Your task to perform on an android device: Open ESPN.com Image 0: 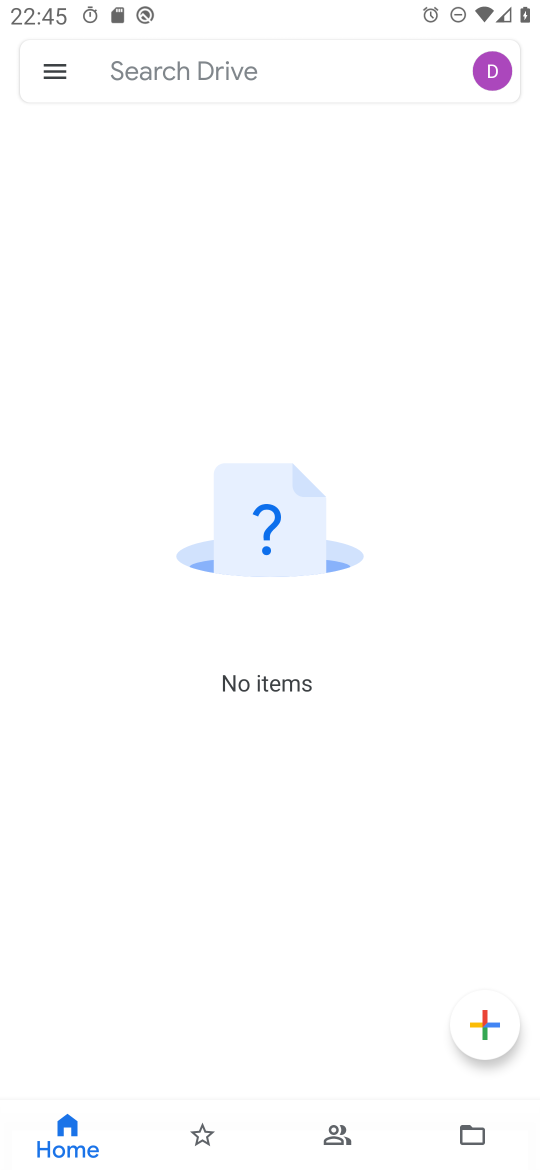
Step 0: press home button
Your task to perform on an android device: Open ESPN.com Image 1: 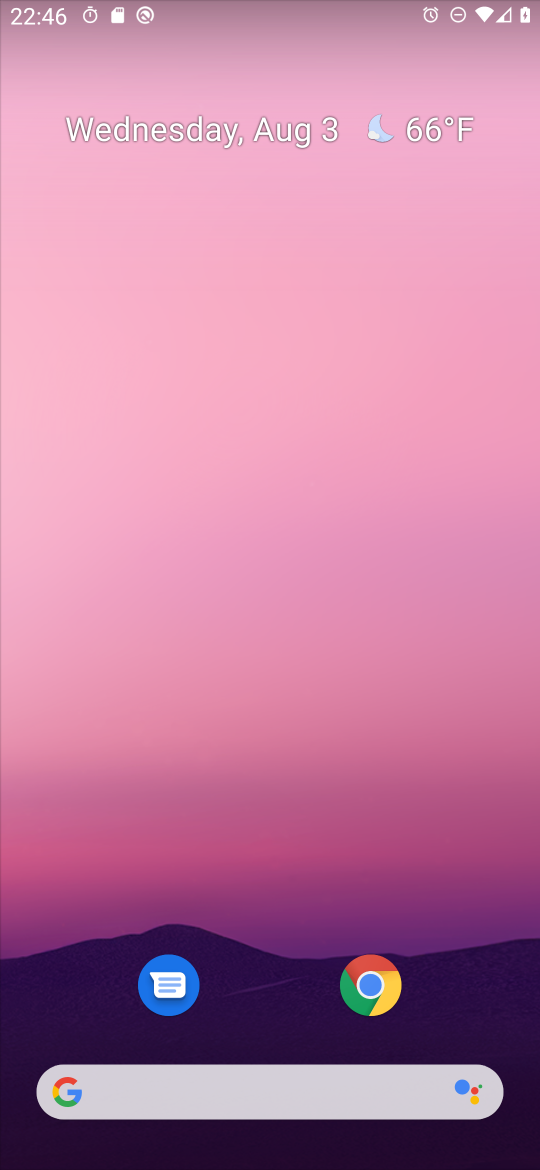
Step 1: click (354, 982)
Your task to perform on an android device: Open ESPN.com Image 2: 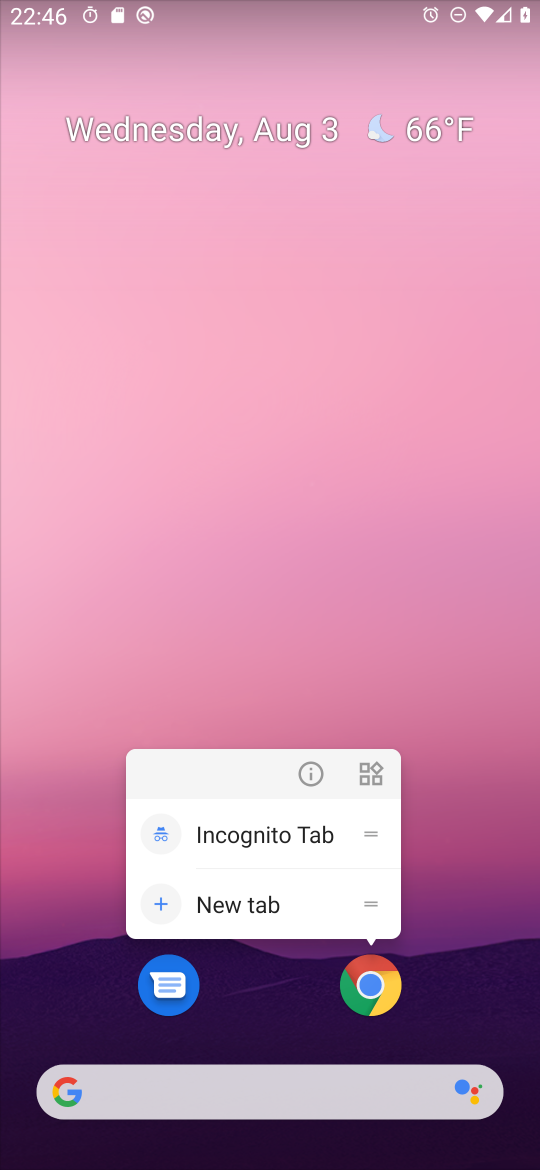
Step 2: click (324, 988)
Your task to perform on an android device: Open ESPN.com Image 3: 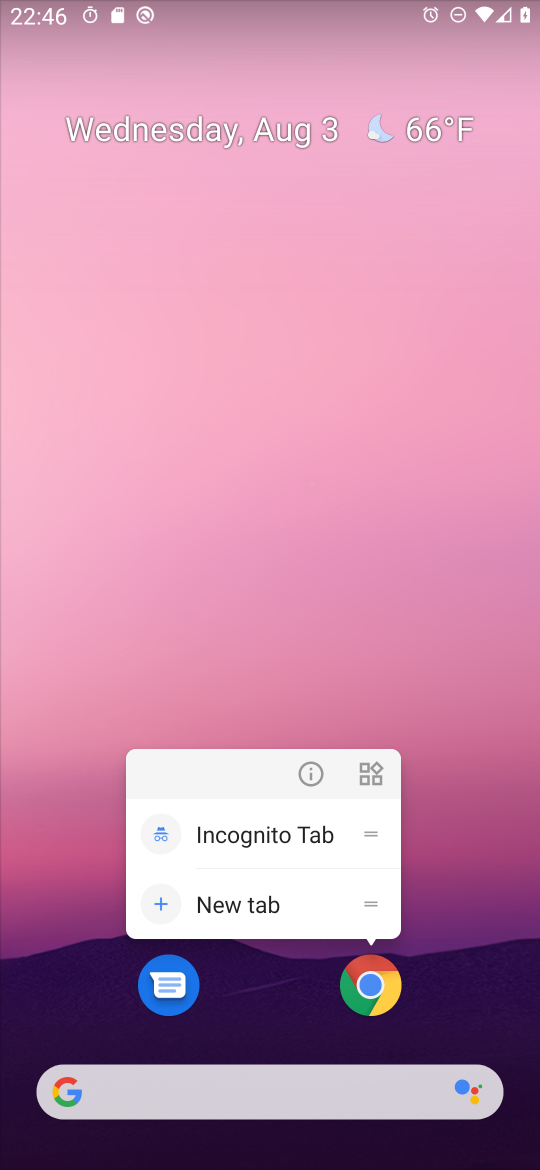
Step 3: click (358, 990)
Your task to perform on an android device: Open ESPN.com Image 4: 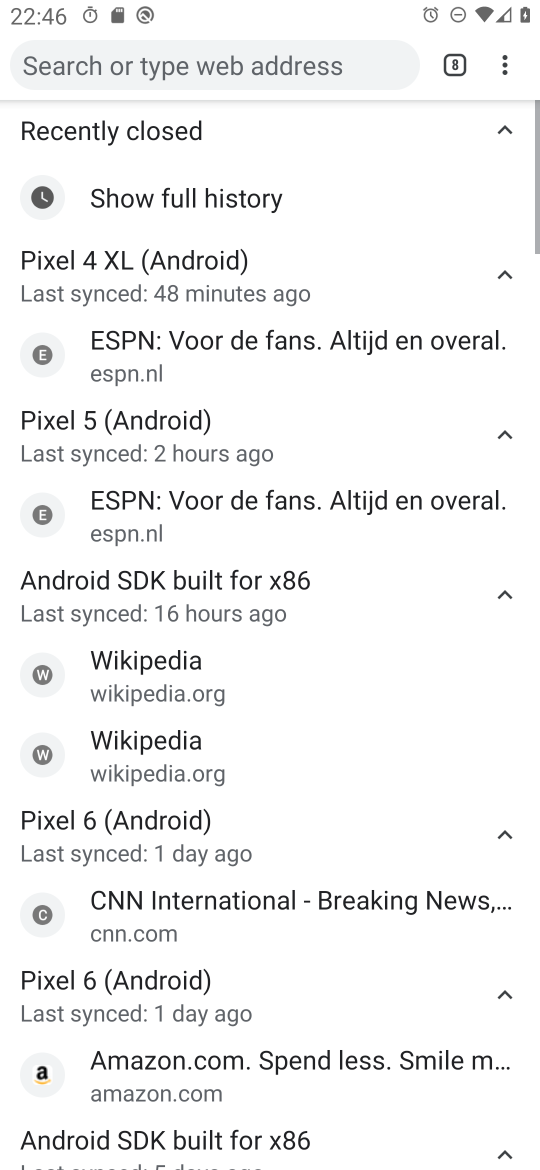
Step 4: click (445, 65)
Your task to perform on an android device: Open ESPN.com Image 5: 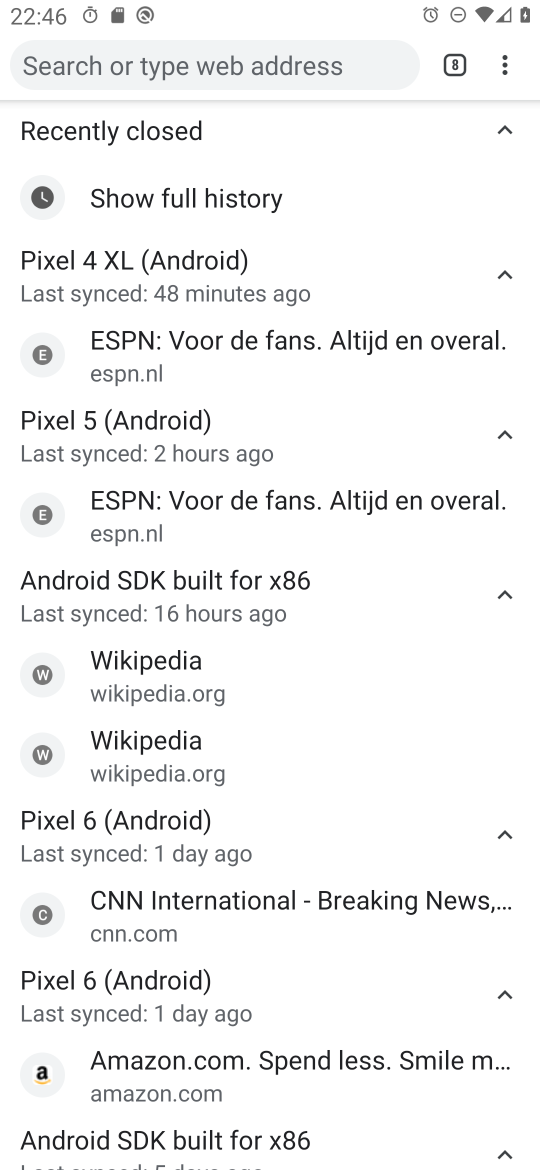
Step 5: click (444, 61)
Your task to perform on an android device: Open ESPN.com Image 6: 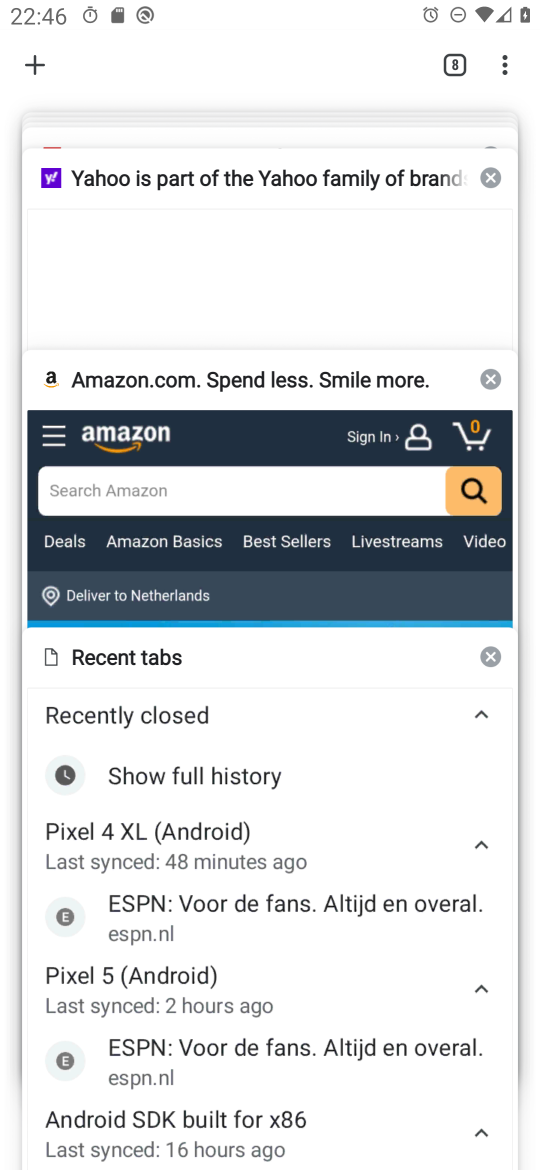
Step 6: click (36, 58)
Your task to perform on an android device: Open ESPN.com Image 7: 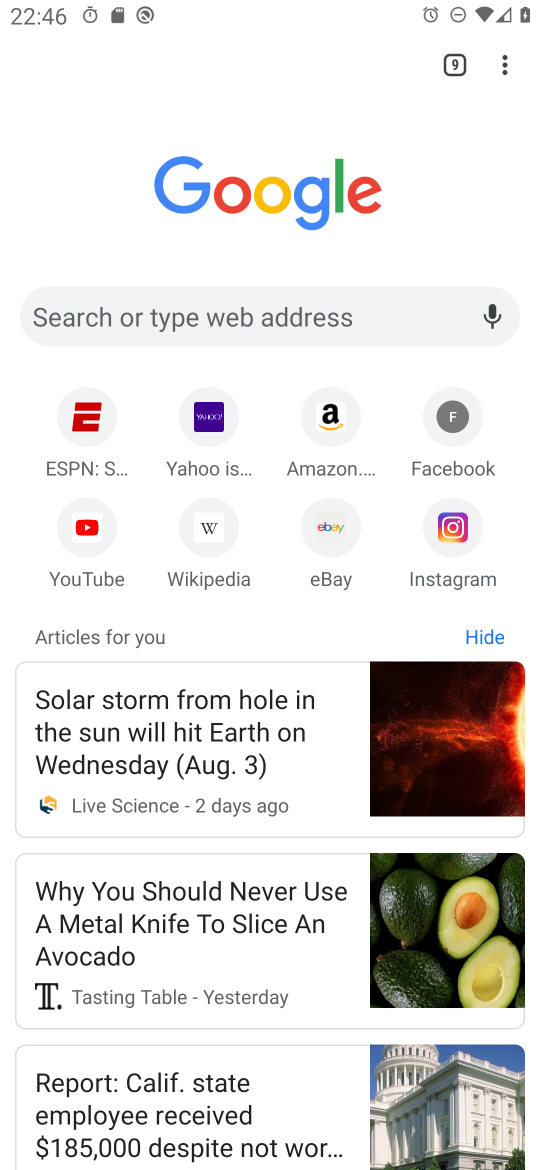
Step 7: type "ESPN.com"
Your task to perform on an android device: Open ESPN.com Image 8: 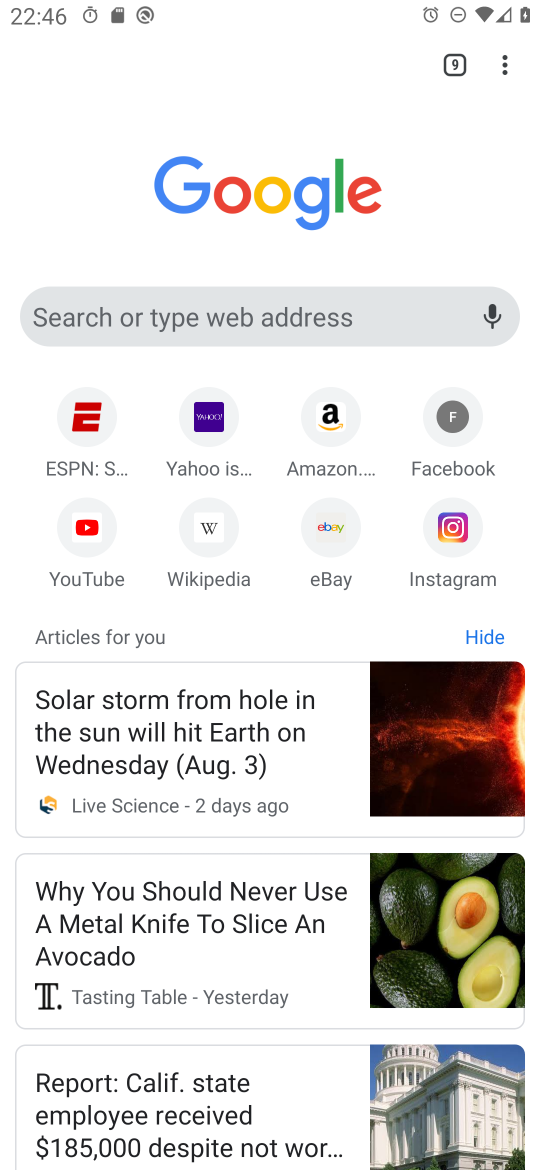
Step 8: click (55, 429)
Your task to perform on an android device: Open ESPN.com Image 9: 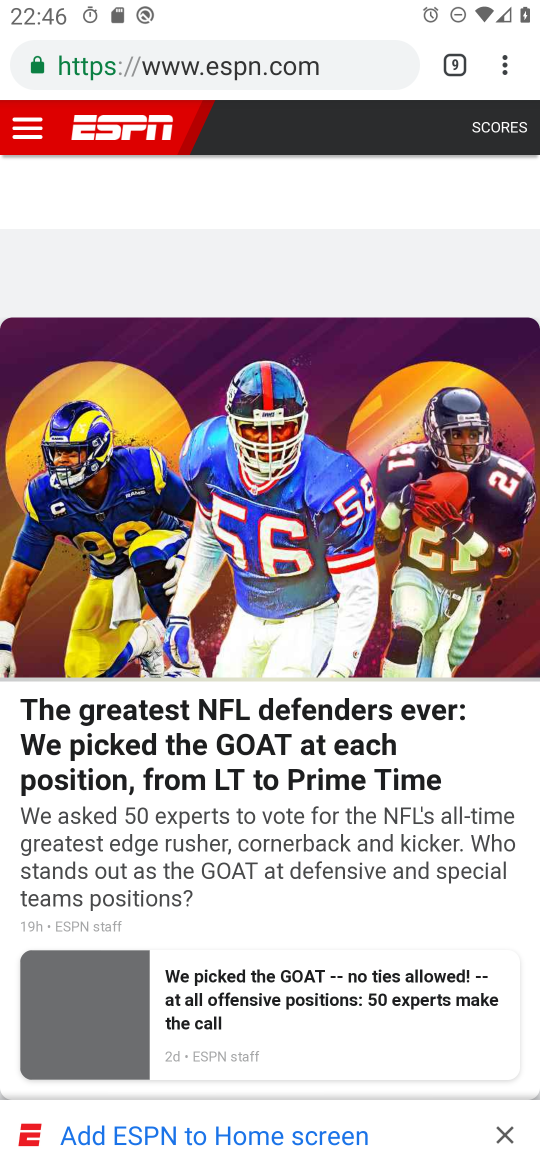
Step 9: task complete